Your task to perform on an android device: empty trash in the gmail app Image 0: 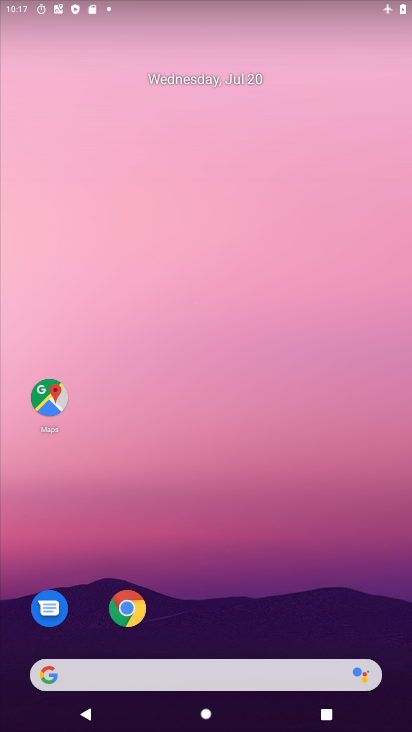
Step 0: drag from (279, 683) to (325, 166)
Your task to perform on an android device: empty trash in the gmail app Image 1: 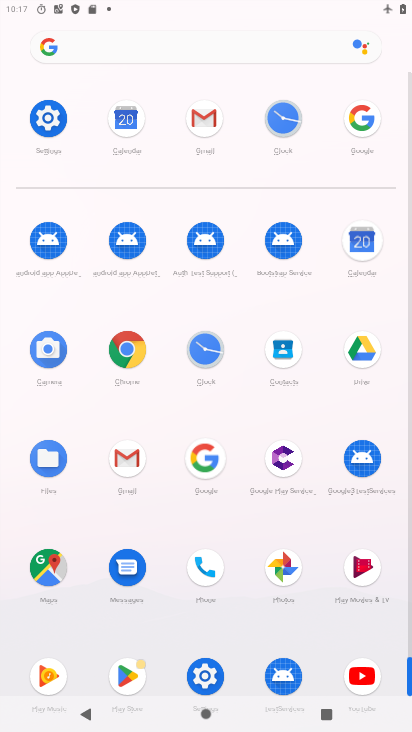
Step 1: click (193, 121)
Your task to perform on an android device: empty trash in the gmail app Image 2: 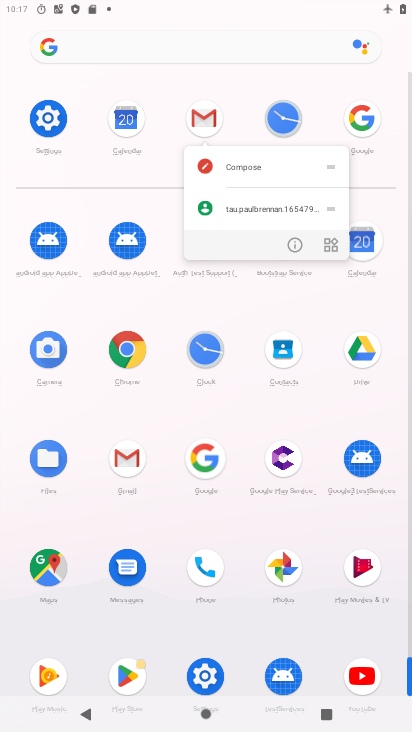
Step 2: click (195, 126)
Your task to perform on an android device: empty trash in the gmail app Image 3: 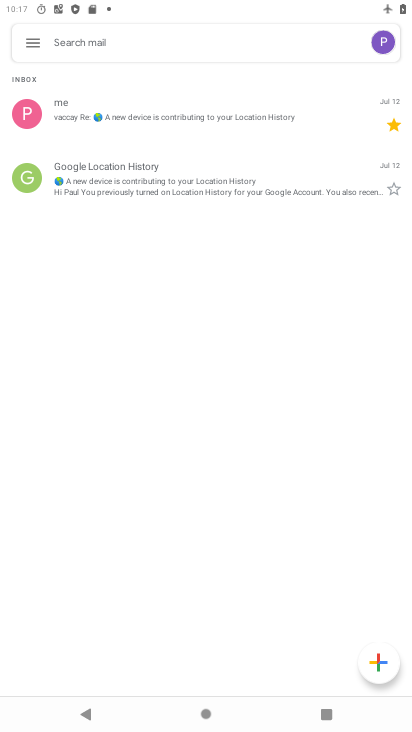
Step 3: click (29, 40)
Your task to perform on an android device: empty trash in the gmail app Image 4: 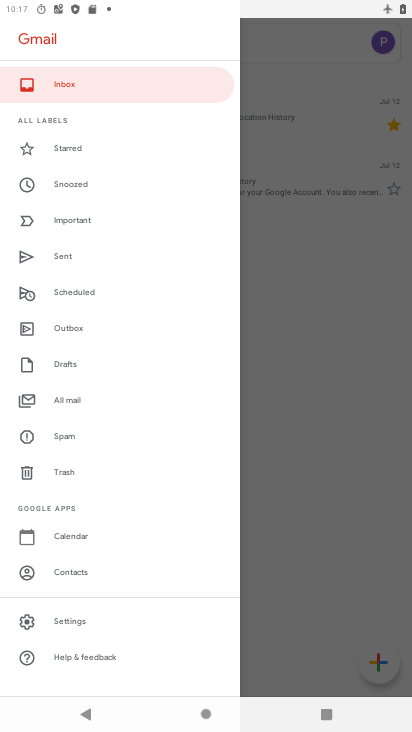
Step 4: click (65, 467)
Your task to perform on an android device: empty trash in the gmail app Image 5: 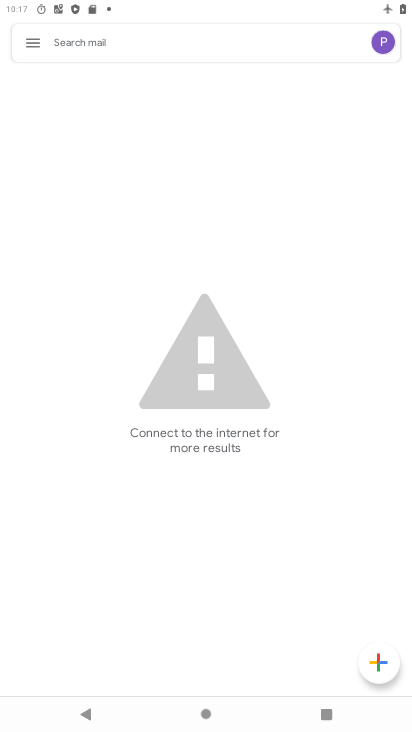
Step 5: task complete